Your task to perform on an android device: Open settings Image 0: 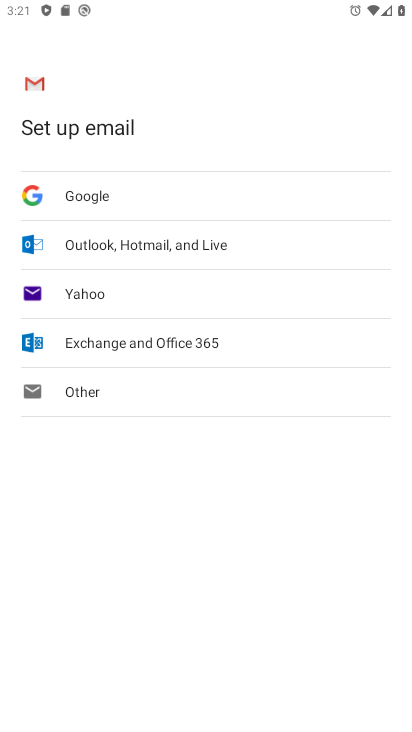
Step 0: press home button
Your task to perform on an android device: Open settings Image 1: 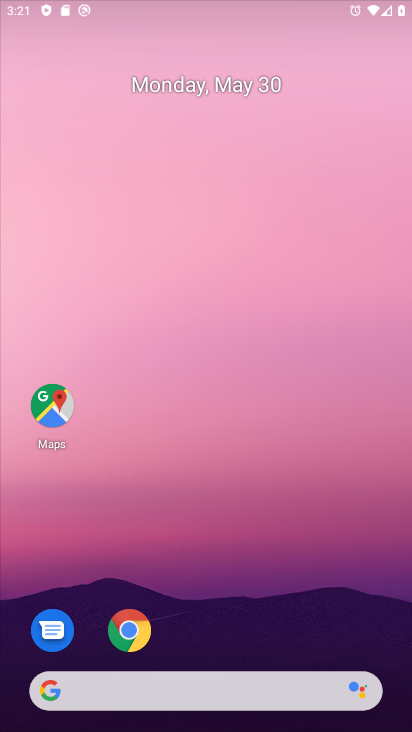
Step 1: drag from (309, 588) to (336, 3)
Your task to perform on an android device: Open settings Image 2: 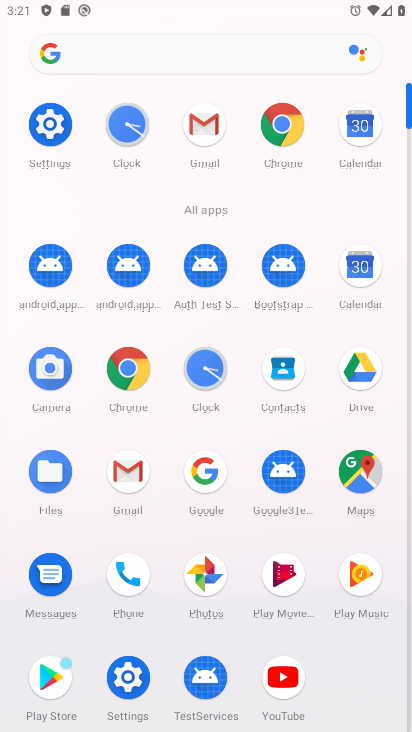
Step 2: click (34, 140)
Your task to perform on an android device: Open settings Image 3: 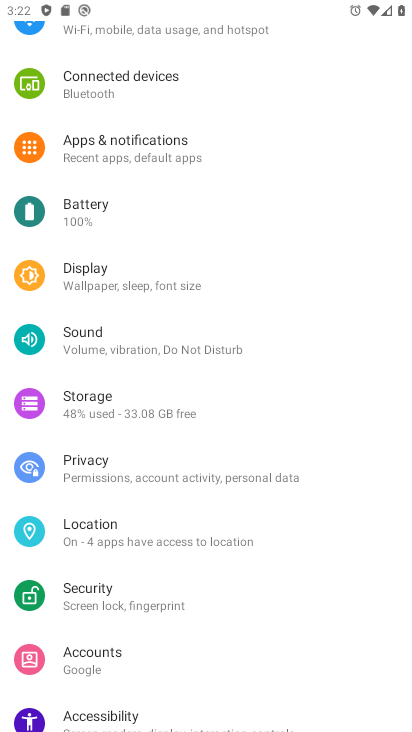
Step 3: task complete